Your task to perform on an android device: Clear the shopping cart on target. Search for rayovac triple a on target, select the first entry, add it to the cart, then select checkout. Image 0: 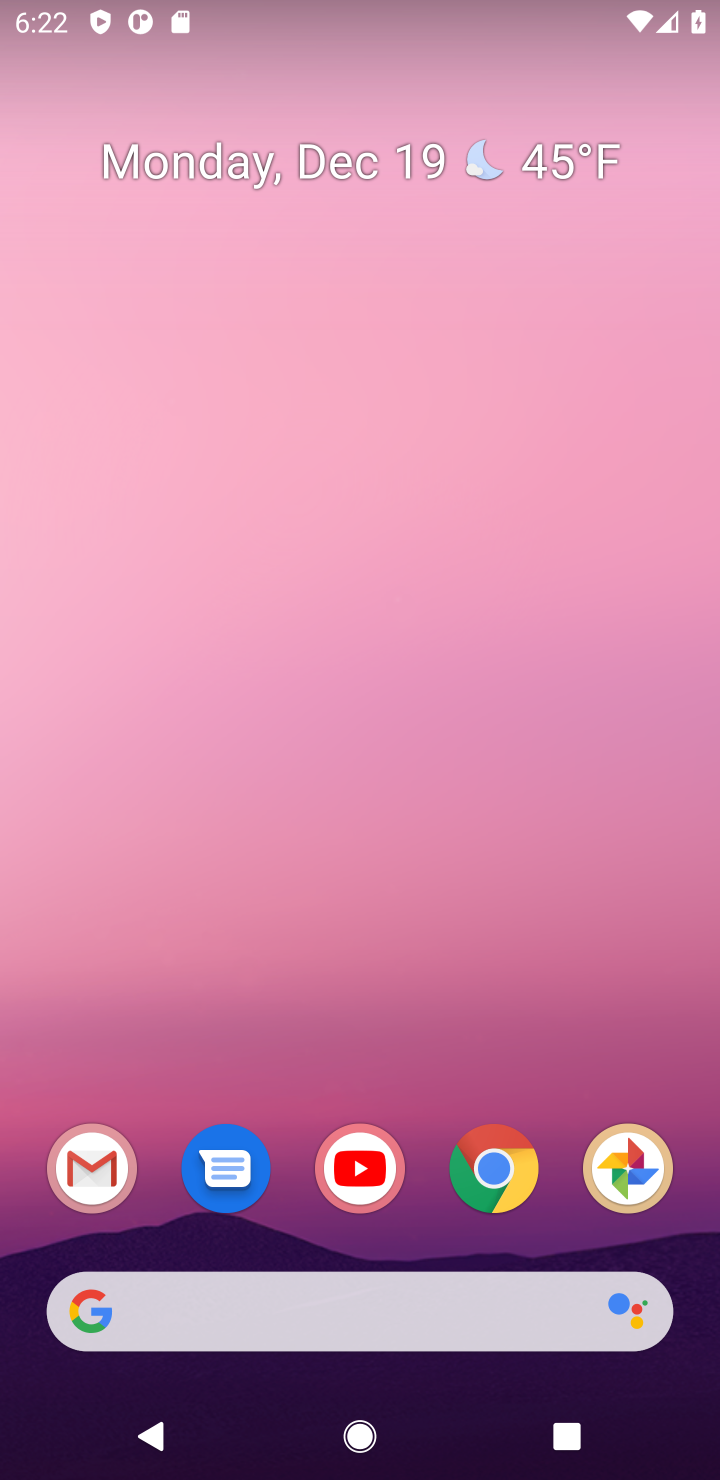
Step 0: click (503, 1177)
Your task to perform on an android device: Clear the shopping cart on target. Search for rayovac triple a on target, select the first entry, add it to the cart, then select checkout. Image 1: 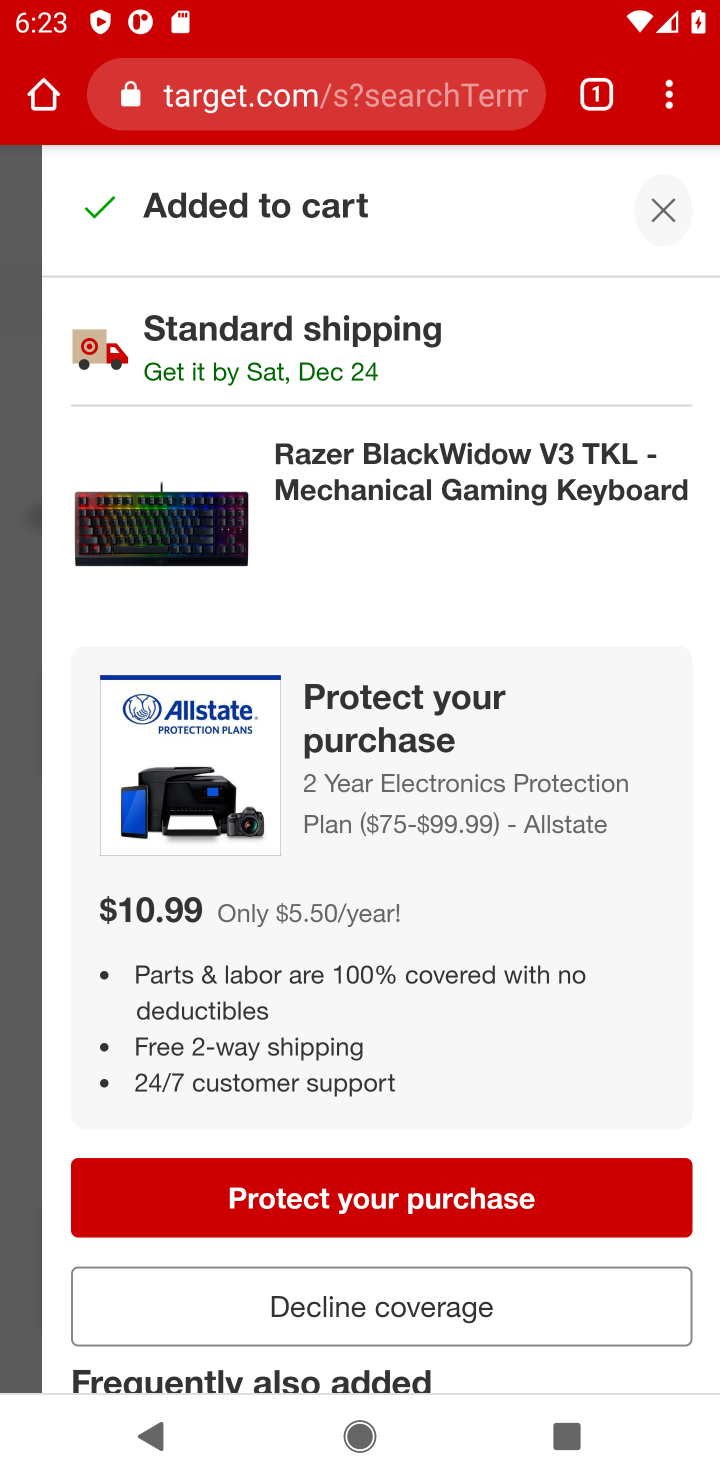
Step 1: click (662, 207)
Your task to perform on an android device: Clear the shopping cart on target. Search for rayovac triple a on target, select the first entry, add it to the cart, then select checkout. Image 2: 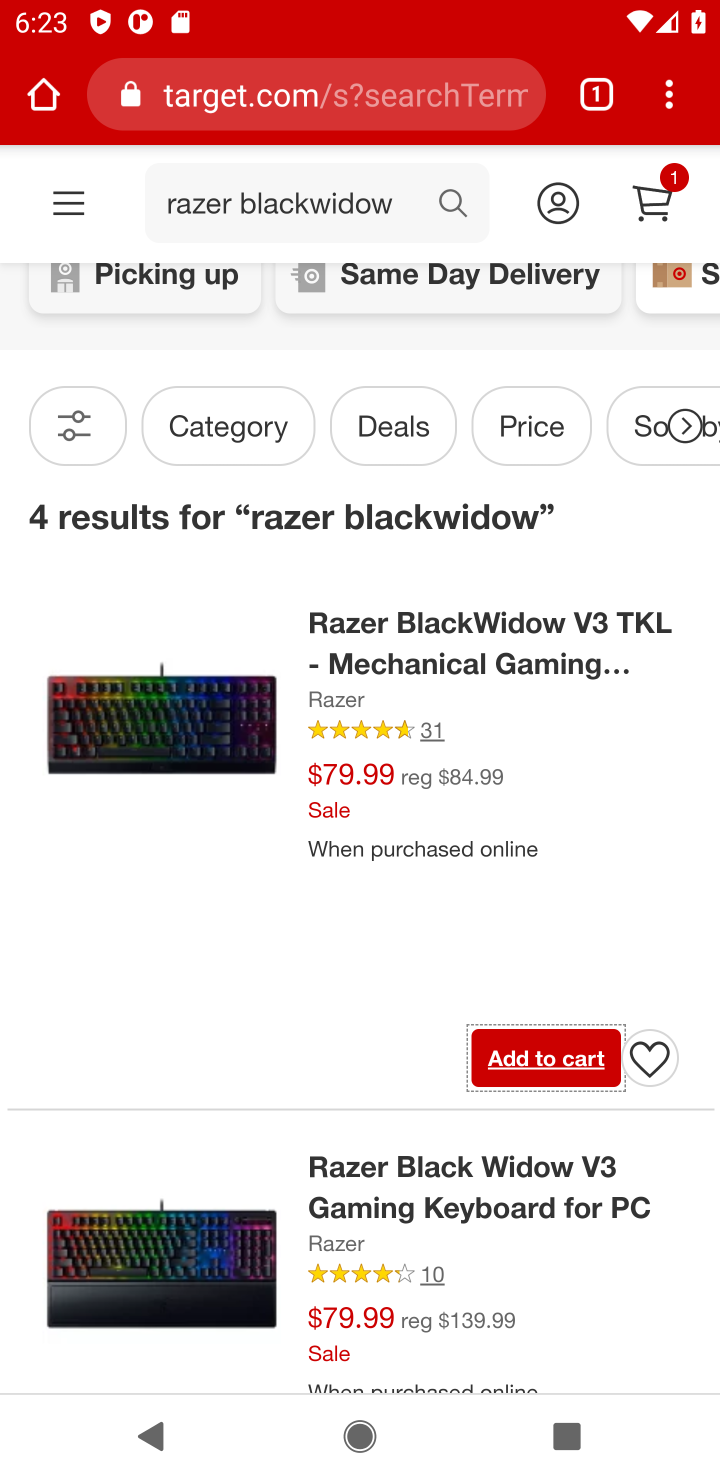
Step 2: click (662, 192)
Your task to perform on an android device: Clear the shopping cart on target. Search for rayovac triple a on target, select the first entry, add it to the cart, then select checkout. Image 3: 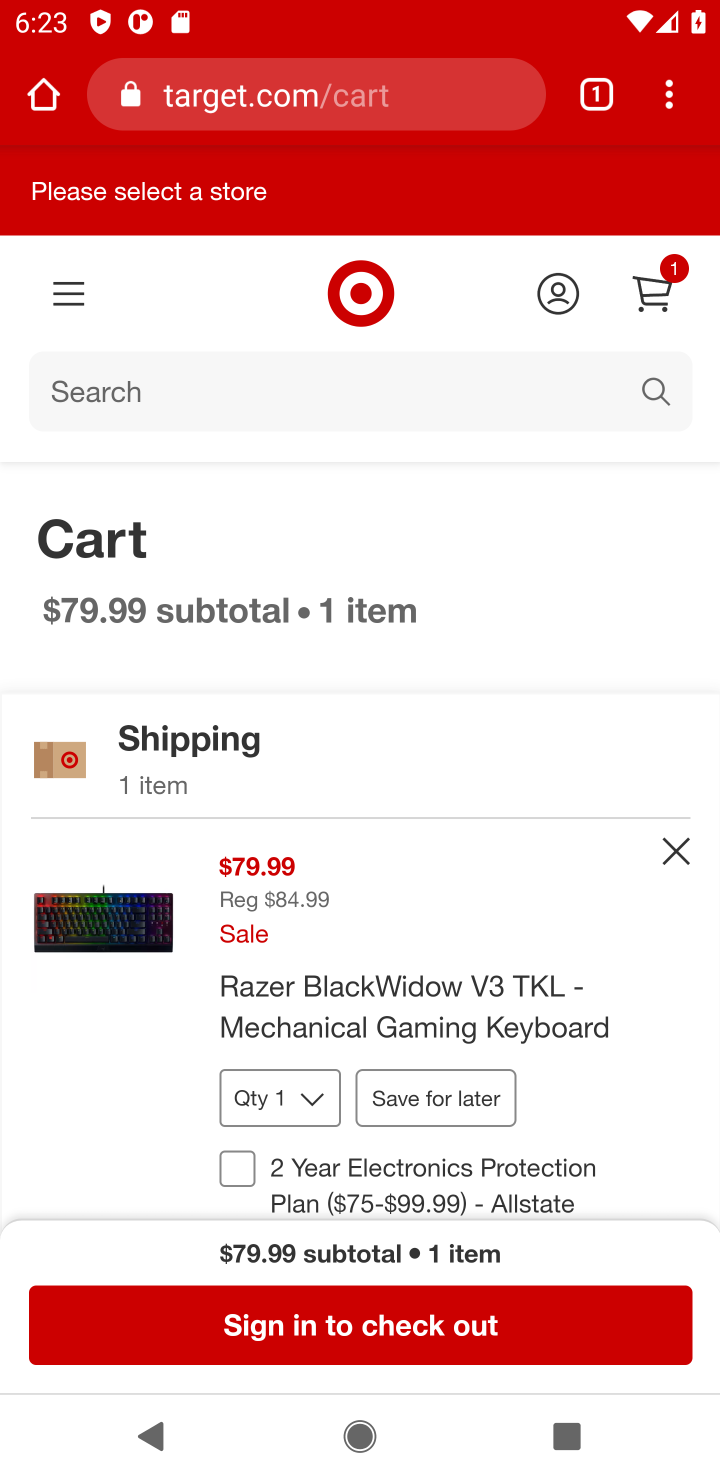
Step 3: click (684, 857)
Your task to perform on an android device: Clear the shopping cart on target. Search for rayovac triple a on target, select the first entry, add it to the cart, then select checkout. Image 4: 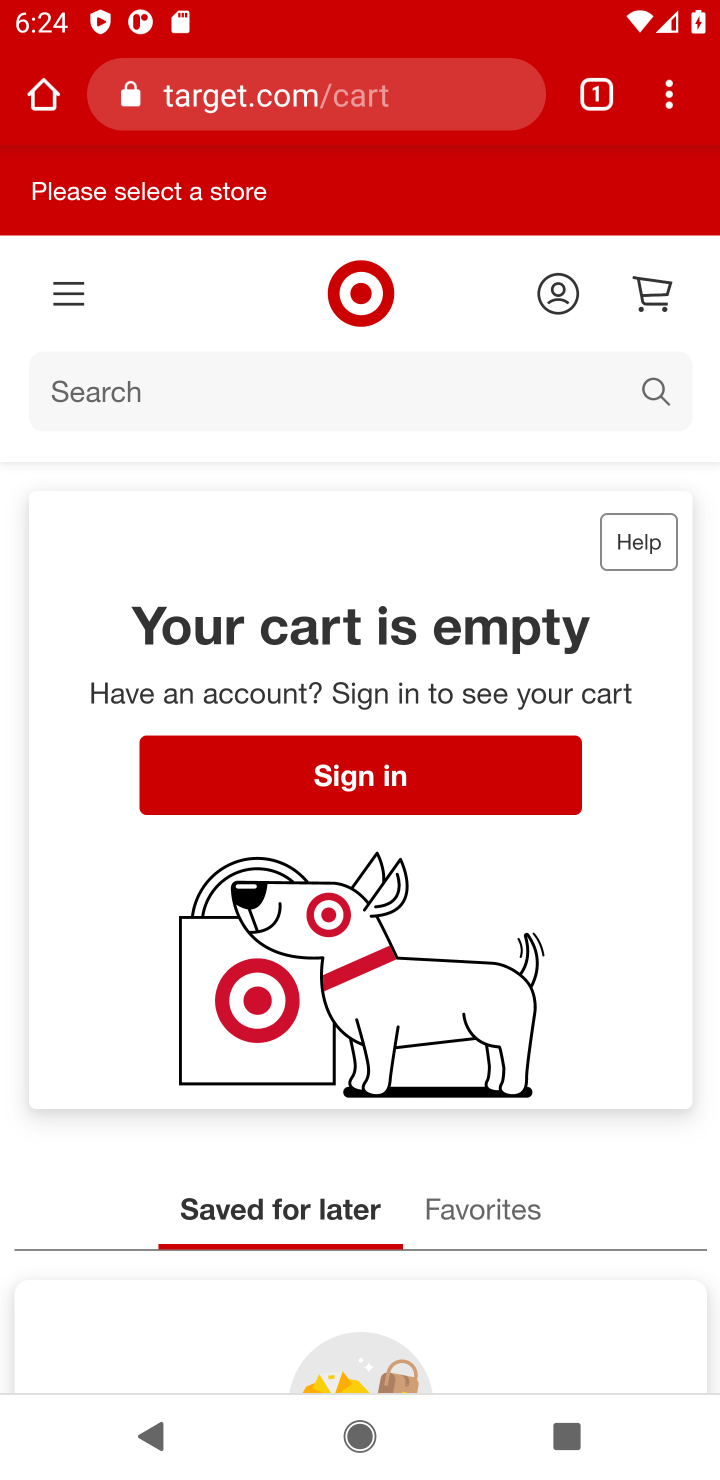
Step 4: click (100, 410)
Your task to perform on an android device: Clear the shopping cart on target. Search for rayovac triple a on target, select the first entry, add it to the cart, then select checkout. Image 5: 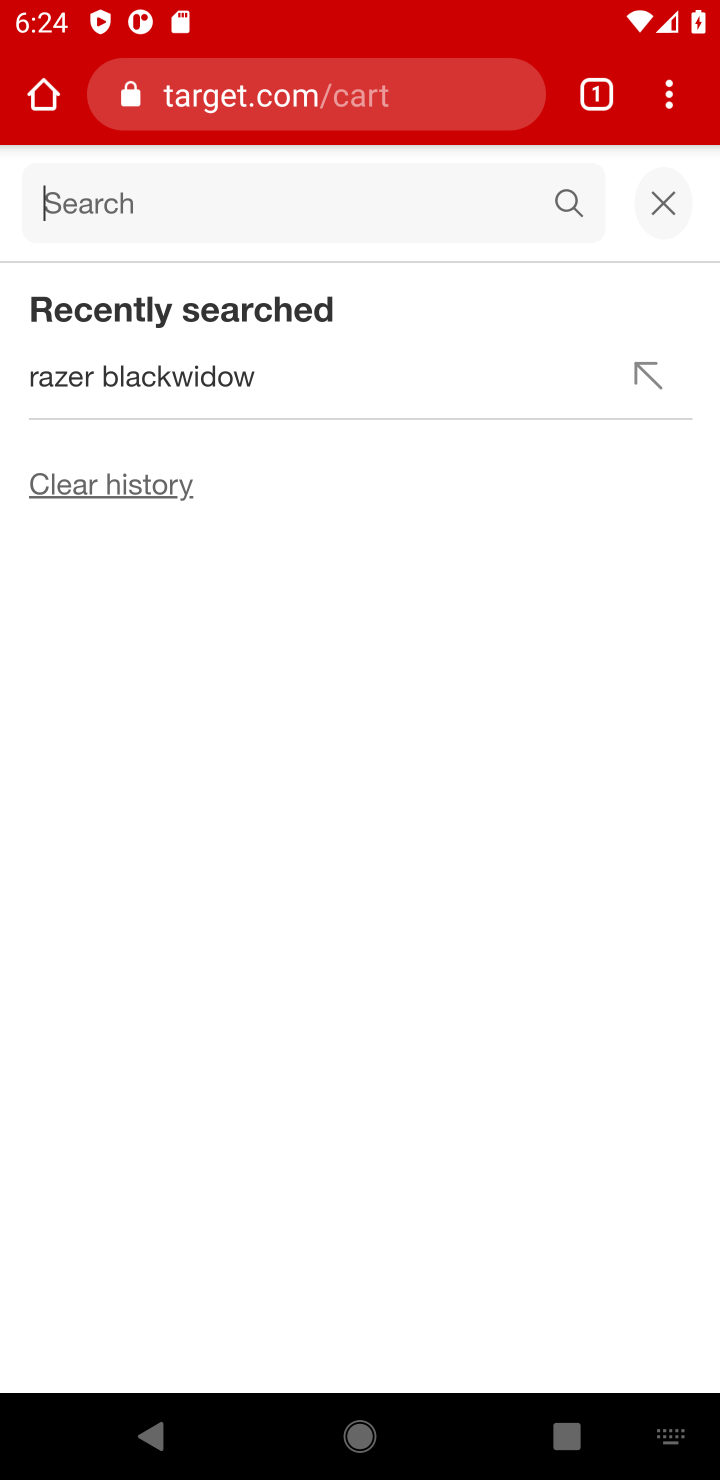
Step 5: type "rayovac triple a"
Your task to perform on an android device: Clear the shopping cart on target. Search for rayovac triple a on target, select the first entry, add it to the cart, then select checkout. Image 6: 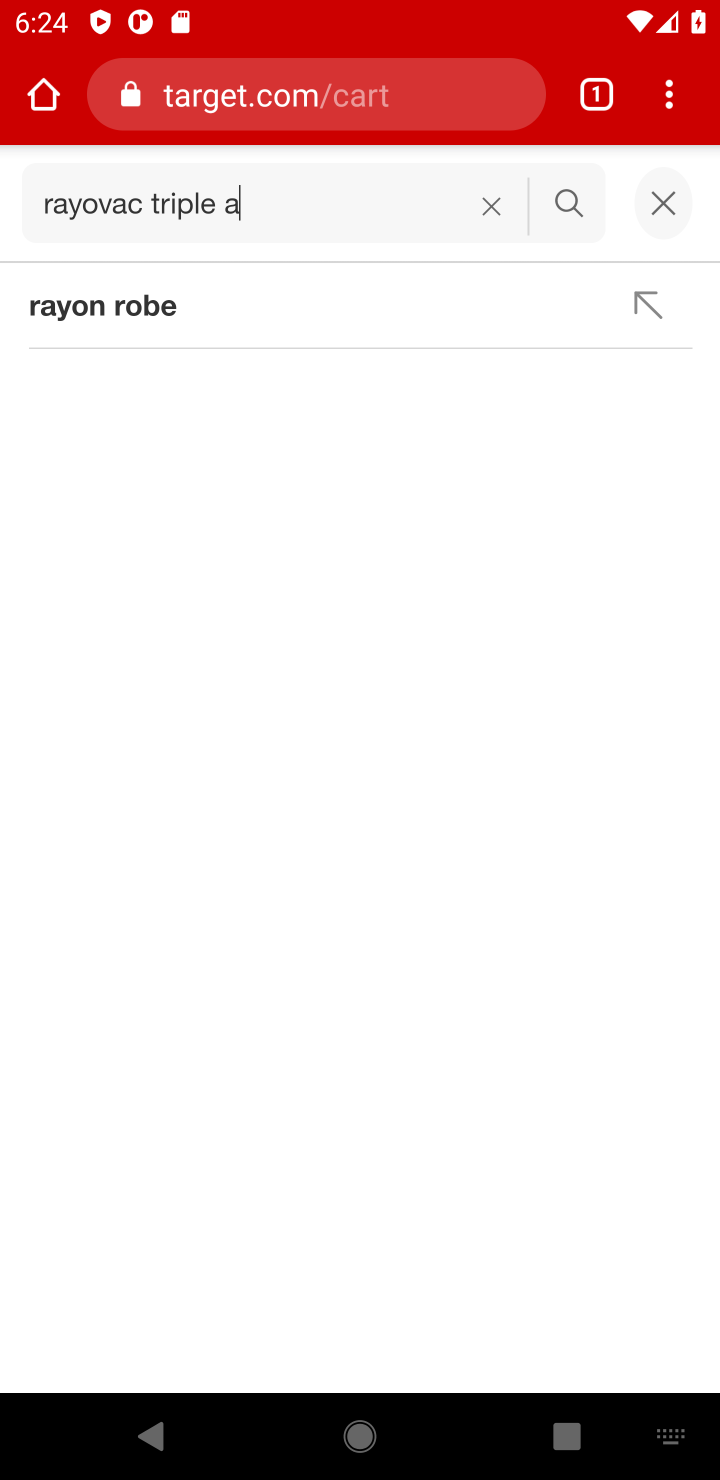
Step 6: click (565, 206)
Your task to perform on an android device: Clear the shopping cart on target. Search for rayovac triple a on target, select the first entry, add it to the cart, then select checkout. Image 7: 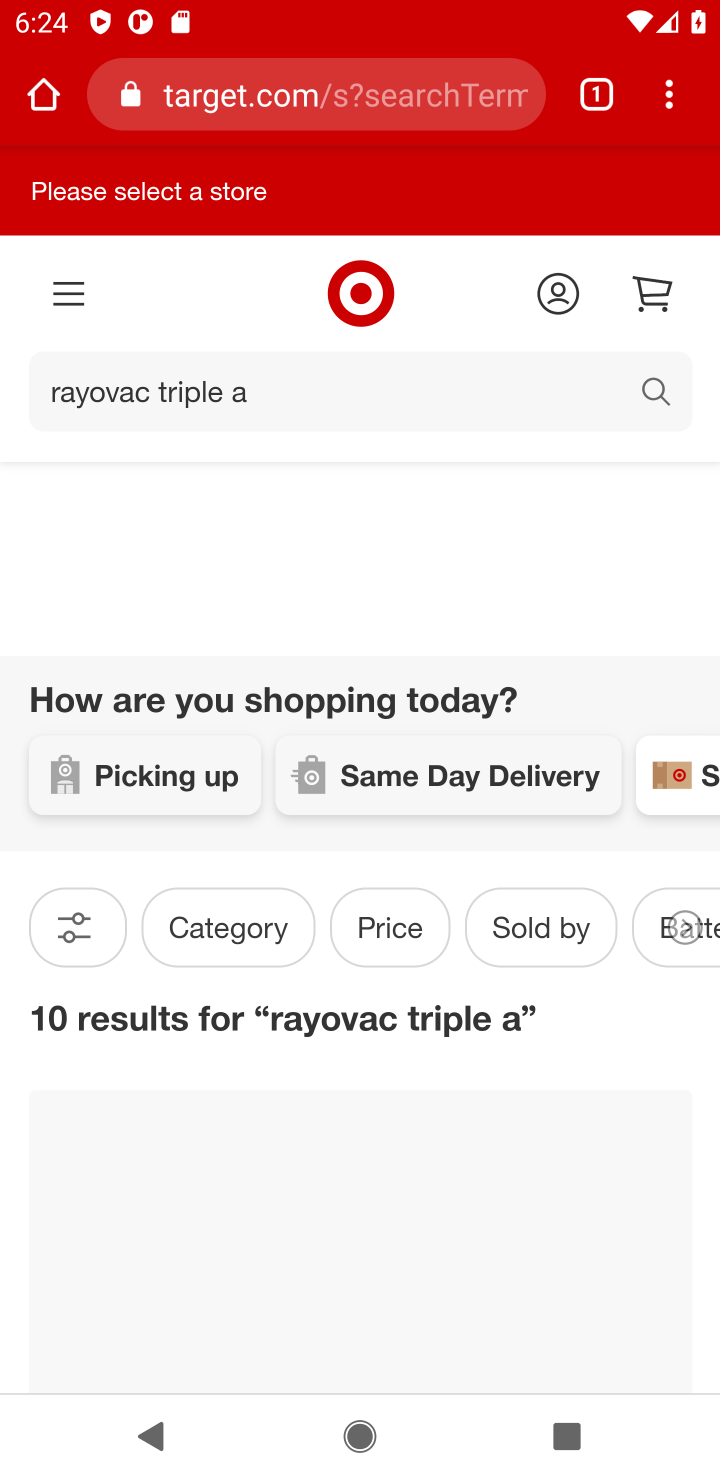
Step 7: task complete